Your task to perform on an android device: turn off wifi Image 0: 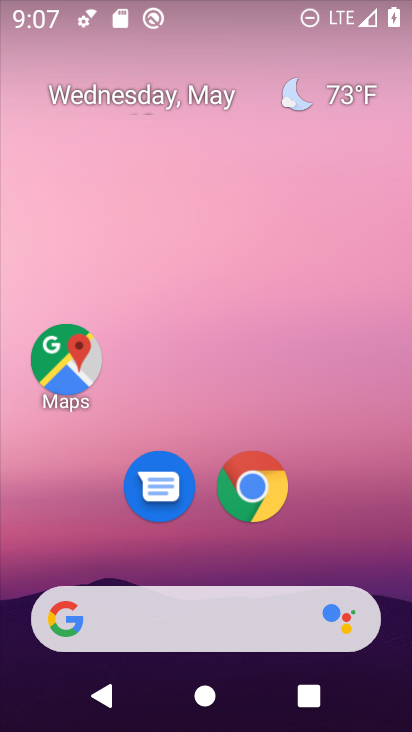
Step 0: drag from (394, 602) to (320, 96)
Your task to perform on an android device: turn off wifi Image 1: 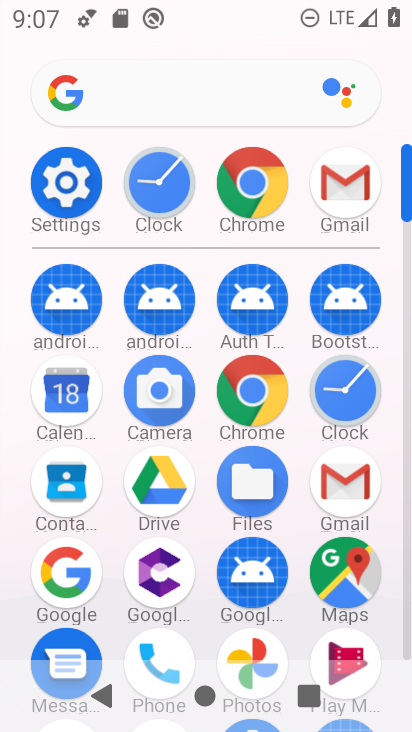
Step 1: click (407, 646)
Your task to perform on an android device: turn off wifi Image 2: 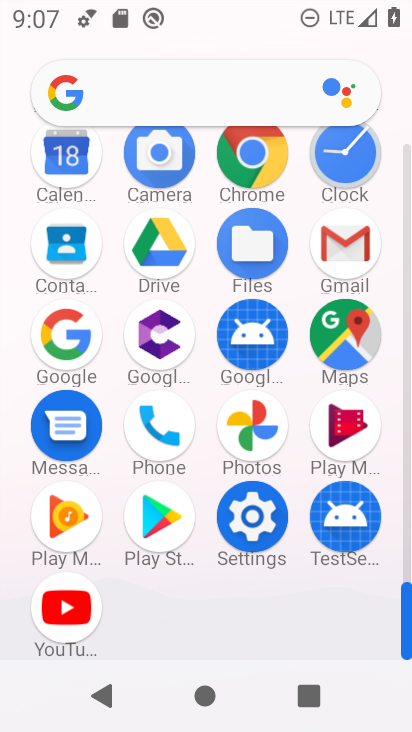
Step 2: click (257, 519)
Your task to perform on an android device: turn off wifi Image 3: 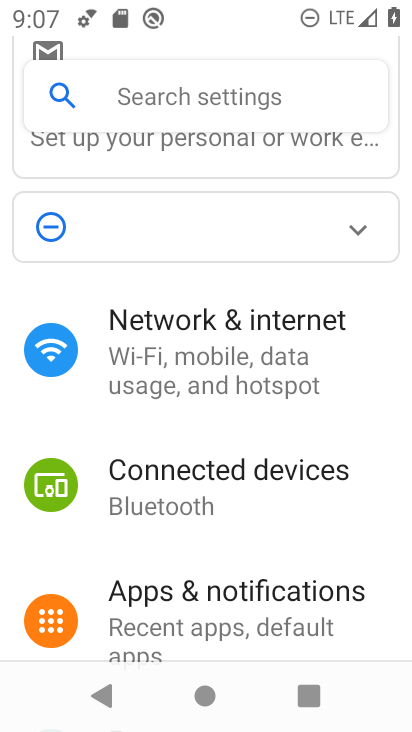
Step 3: click (163, 341)
Your task to perform on an android device: turn off wifi Image 4: 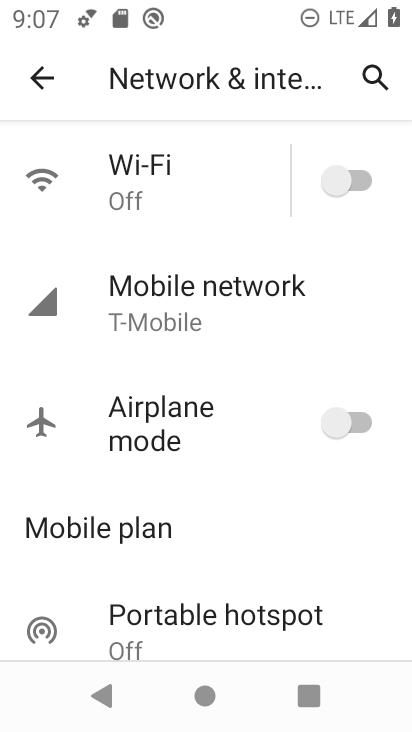
Step 4: task complete